Your task to perform on an android device: Toggle the flashlight Image 0: 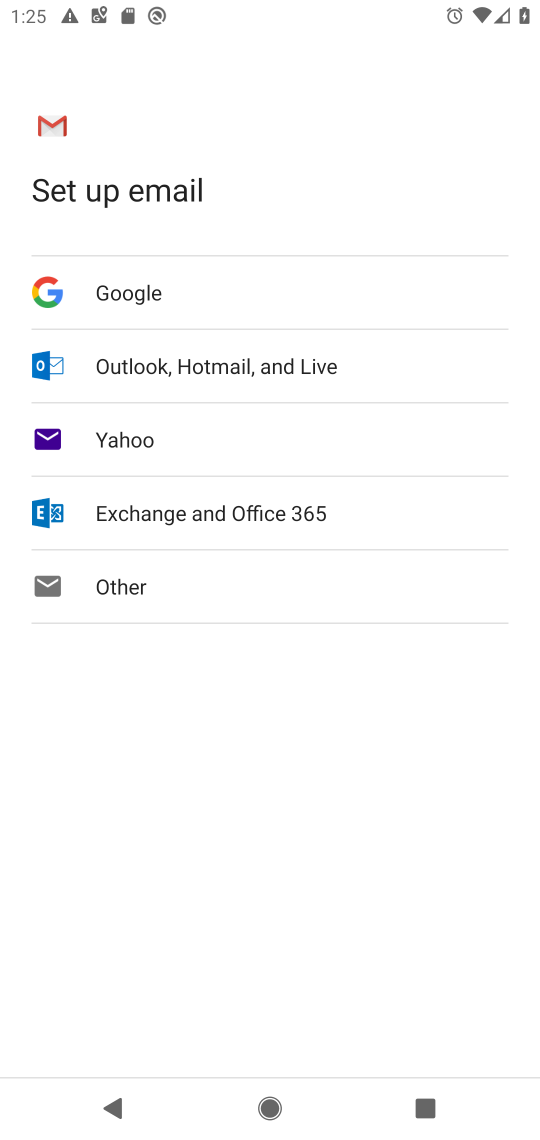
Step 0: press home button
Your task to perform on an android device: Toggle the flashlight Image 1: 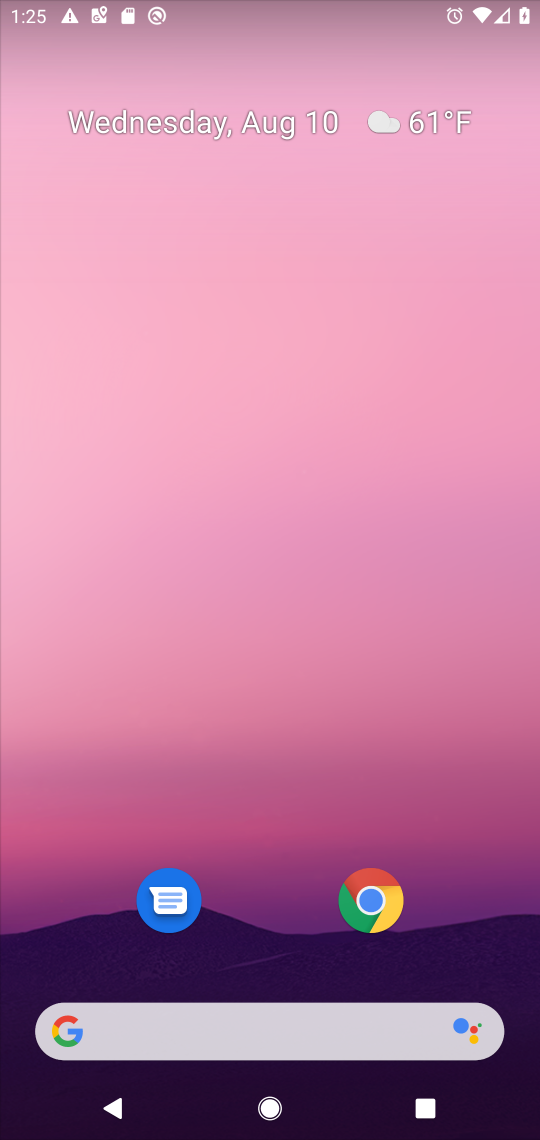
Step 1: click (253, 1027)
Your task to perform on an android device: Toggle the flashlight Image 2: 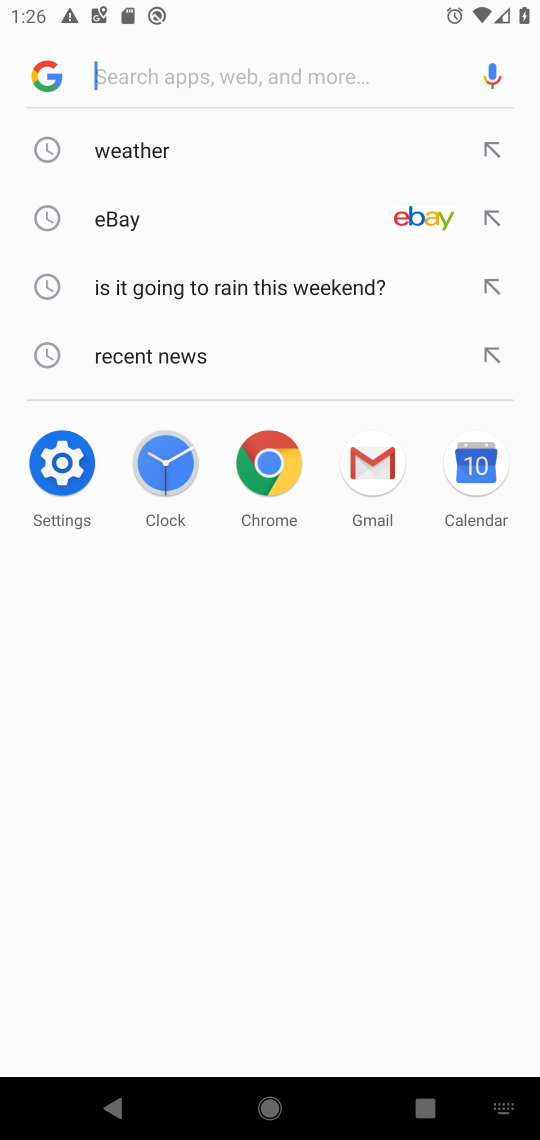
Step 2: press home button
Your task to perform on an android device: Toggle the flashlight Image 3: 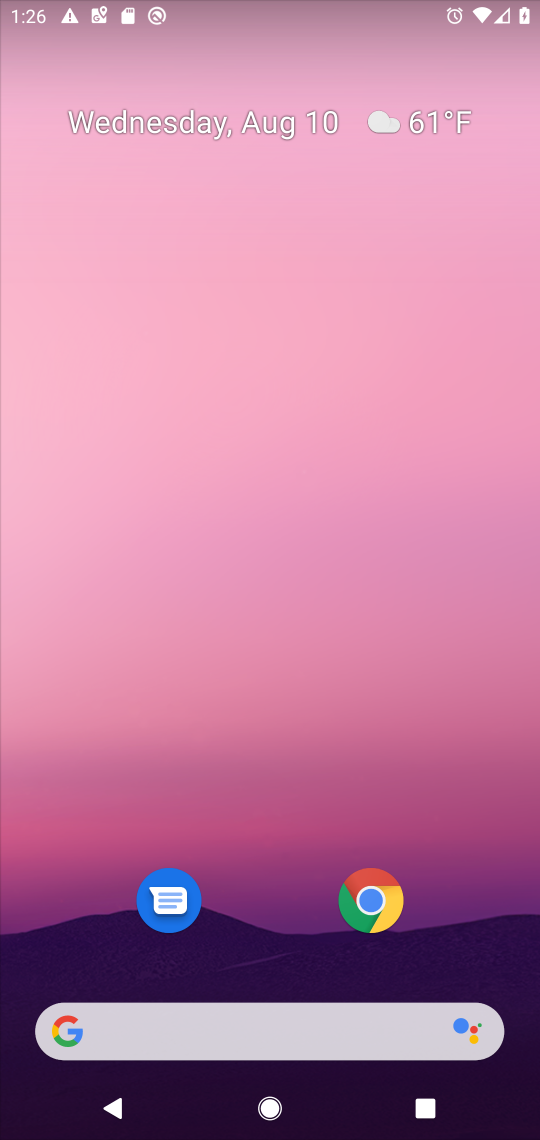
Step 3: drag from (296, 822) to (337, 0)
Your task to perform on an android device: Toggle the flashlight Image 4: 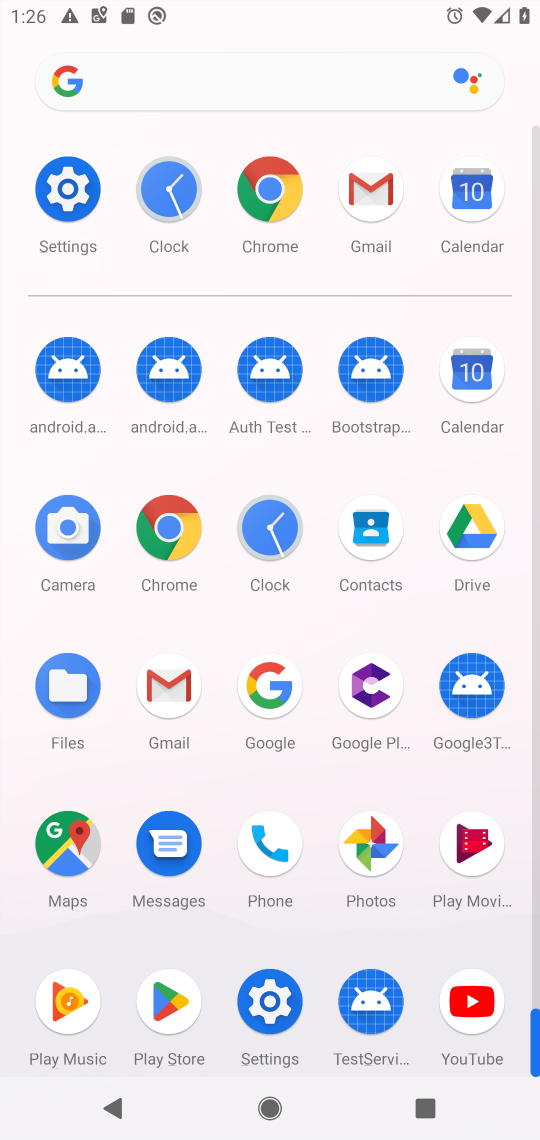
Step 4: click (74, 187)
Your task to perform on an android device: Toggle the flashlight Image 5: 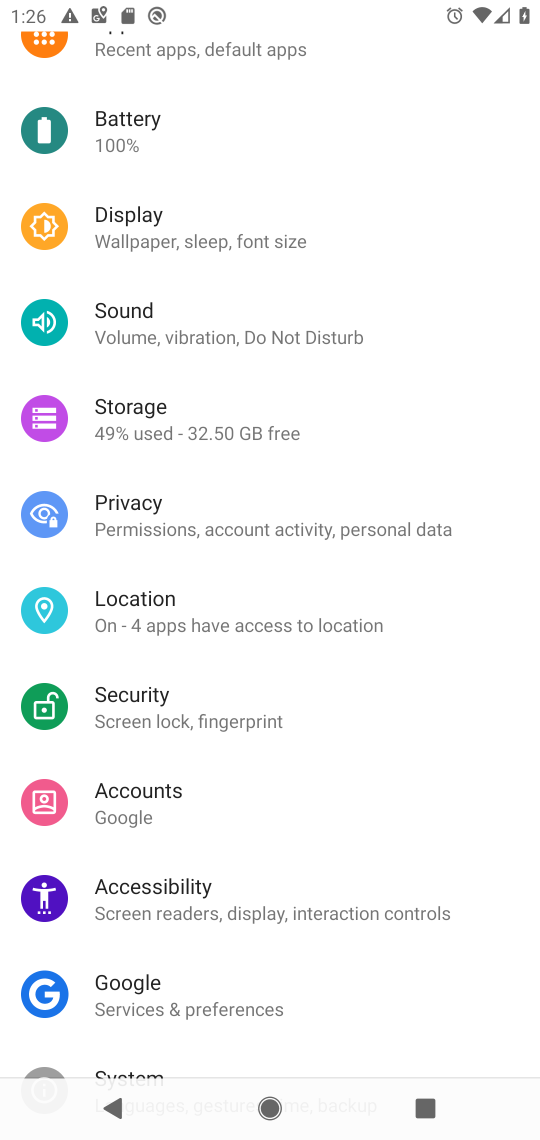
Step 5: drag from (269, 179) to (251, 954)
Your task to perform on an android device: Toggle the flashlight Image 6: 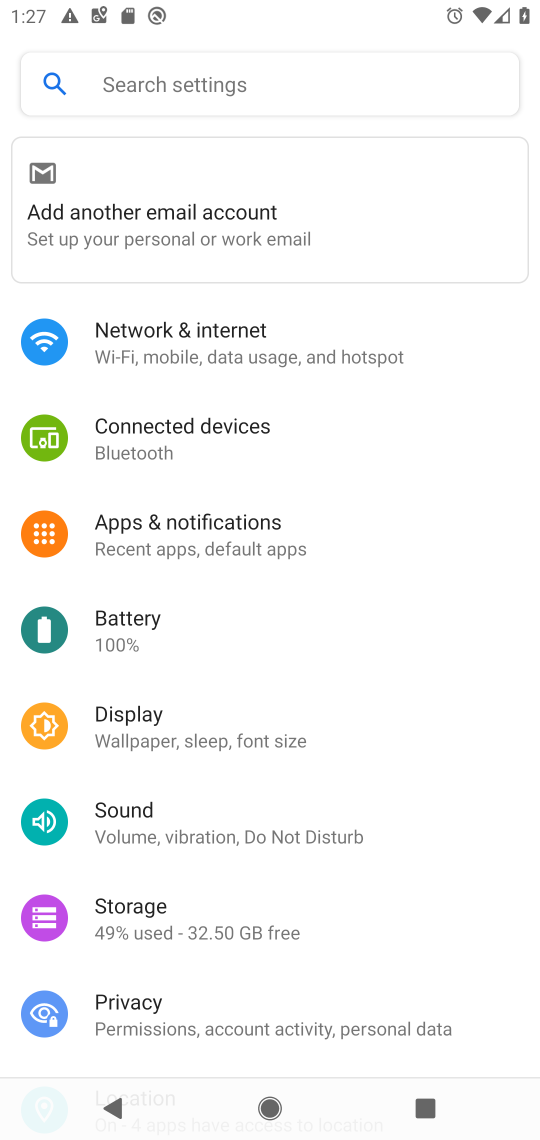
Step 6: click (251, 81)
Your task to perform on an android device: Toggle the flashlight Image 7: 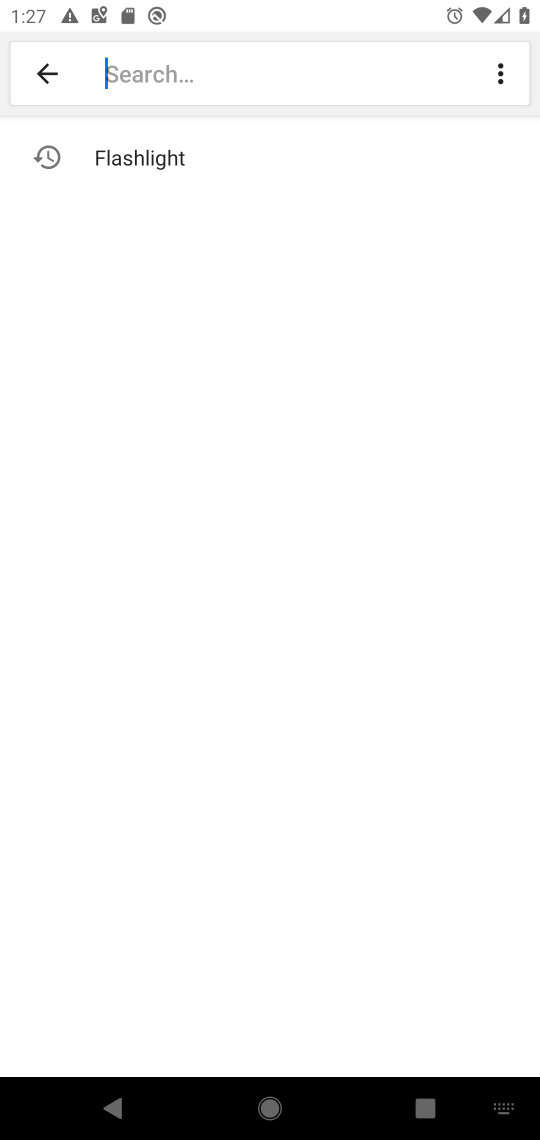
Step 7: click (187, 150)
Your task to perform on an android device: Toggle the flashlight Image 8: 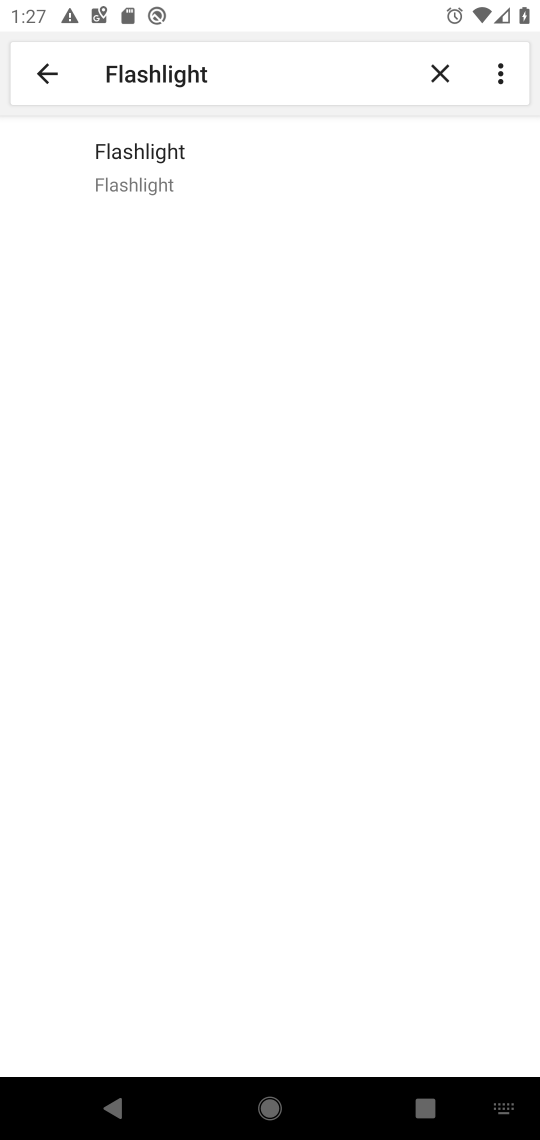
Step 8: click (178, 159)
Your task to perform on an android device: Toggle the flashlight Image 9: 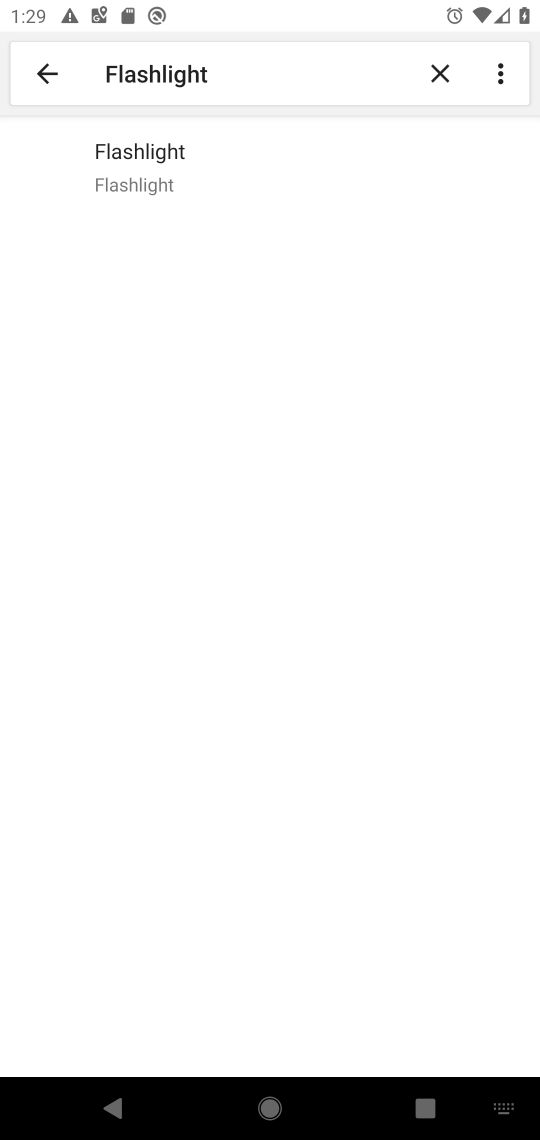
Step 9: task complete